Your task to perform on an android device: toggle javascript in the chrome app Image 0: 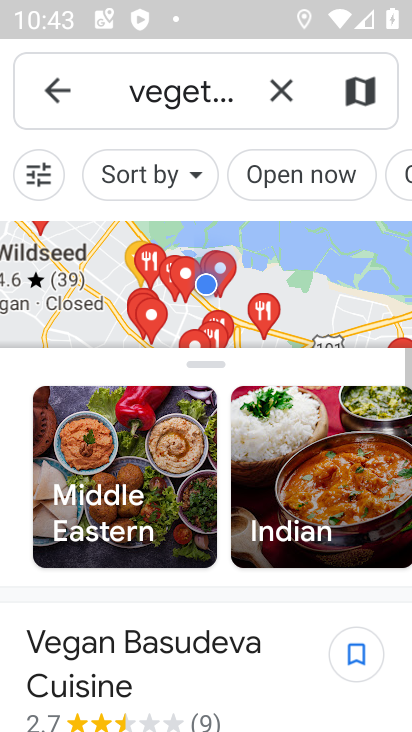
Step 0: press home button
Your task to perform on an android device: toggle javascript in the chrome app Image 1: 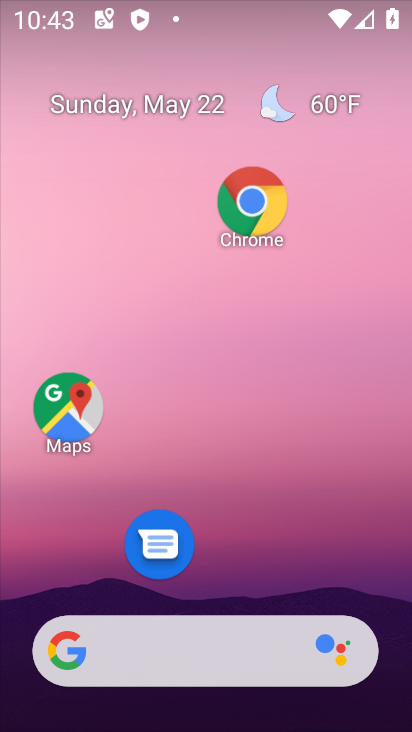
Step 1: click (259, 201)
Your task to perform on an android device: toggle javascript in the chrome app Image 2: 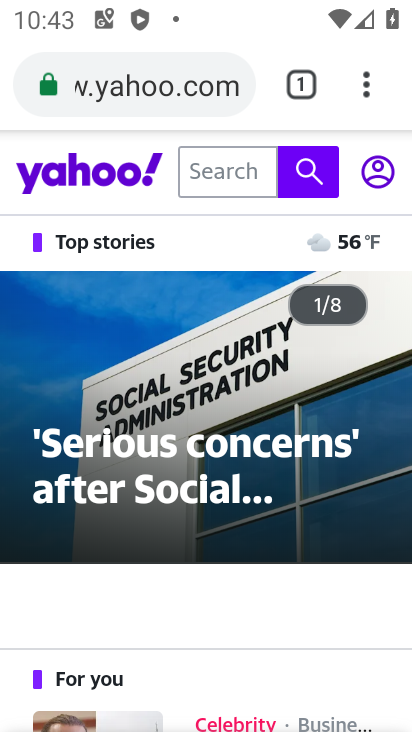
Step 2: click (358, 88)
Your task to perform on an android device: toggle javascript in the chrome app Image 3: 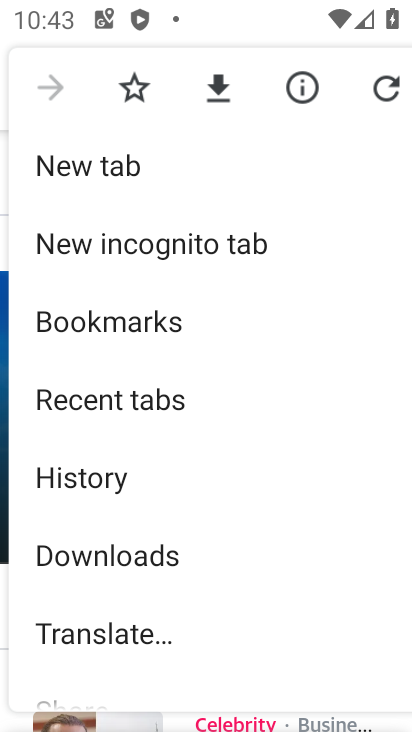
Step 3: drag from (157, 599) to (267, 45)
Your task to perform on an android device: toggle javascript in the chrome app Image 4: 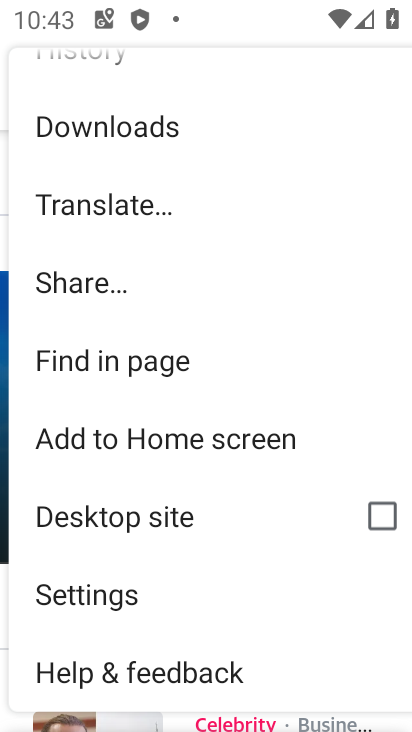
Step 4: click (81, 586)
Your task to perform on an android device: toggle javascript in the chrome app Image 5: 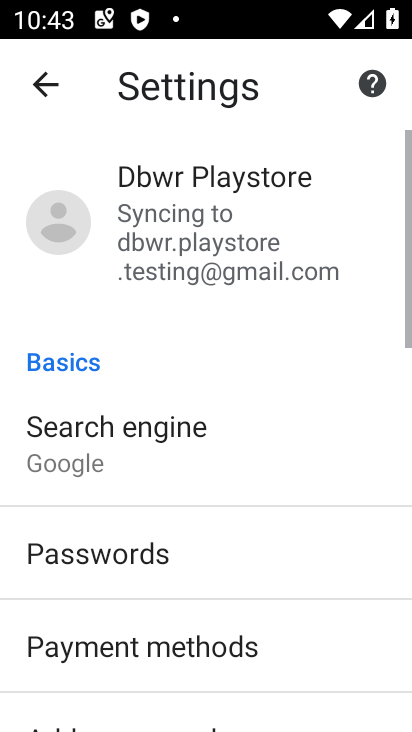
Step 5: drag from (267, 609) to (342, 25)
Your task to perform on an android device: toggle javascript in the chrome app Image 6: 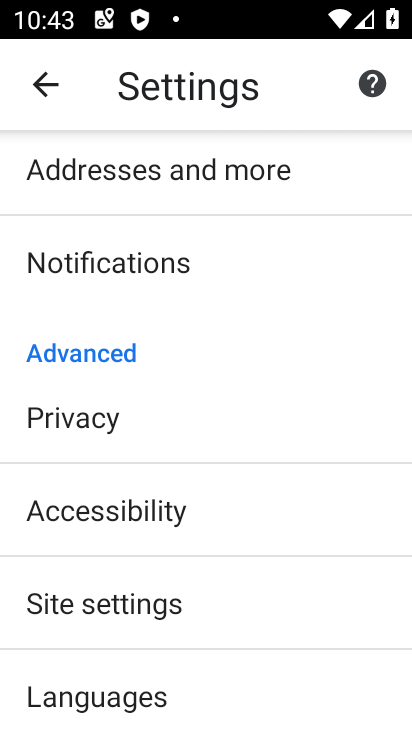
Step 6: click (107, 596)
Your task to perform on an android device: toggle javascript in the chrome app Image 7: 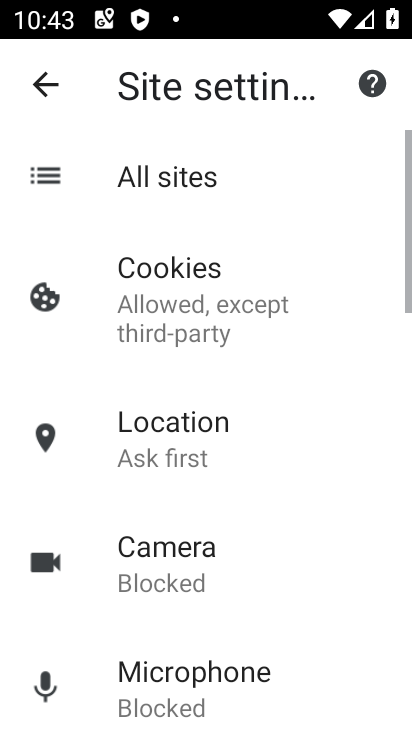
Step 7: drag from (220, 613) to (271, 119)
Your task to perform on an android device: toggle javascript in the chrome app Image 8: 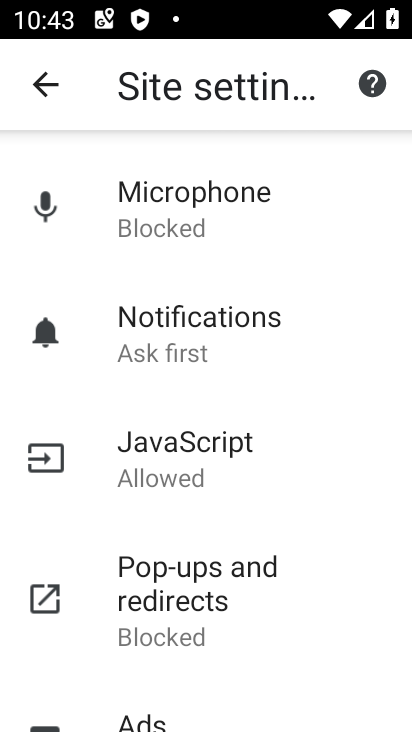
Step 8: click (198, 465)
Your task to perform on an android device: toggle javascript in the chrome app Image 9: 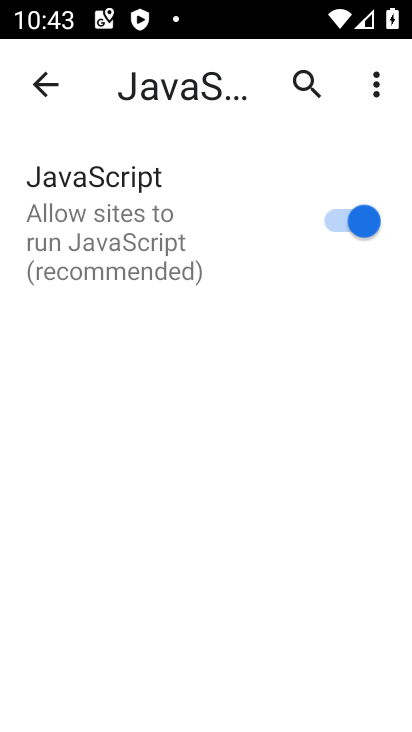
Step 9: click (352, 221)
Your task to perform on an android device: toggle javascript in the chrome app Image 10: 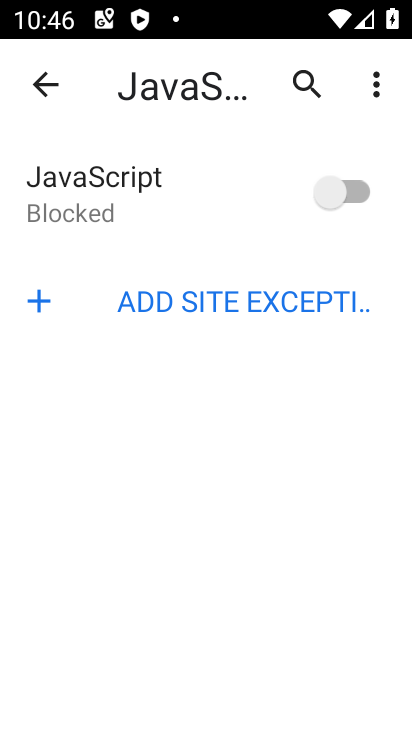
Step 10: task complete